Your task to perform on an android device: Open calendar and show me the second week of next month Image 0: 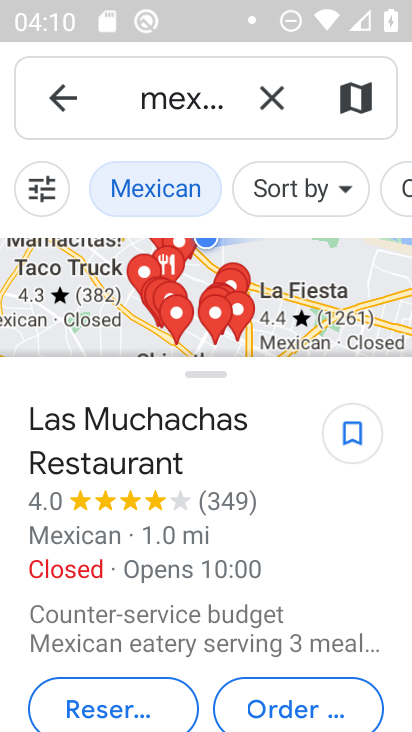
Step 0: press home button
Your task to perform on an android device: Open calendar and show me the second week of next month Image 1: 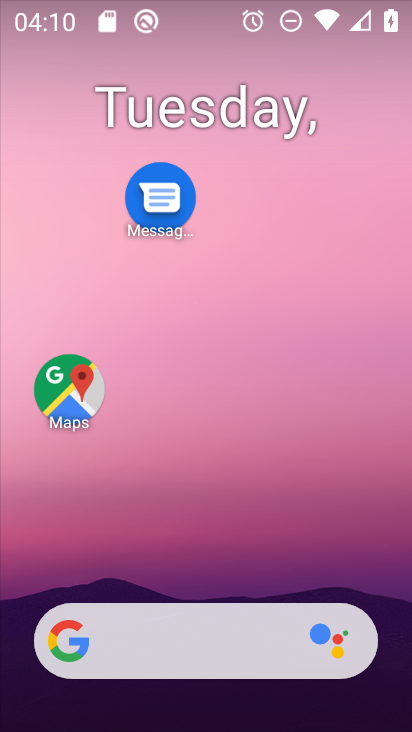
Step 1: drag from (236, 557) to (263, 139)
Your task to perform on an android device: Open calendar and show me the second week of next month Image 2: 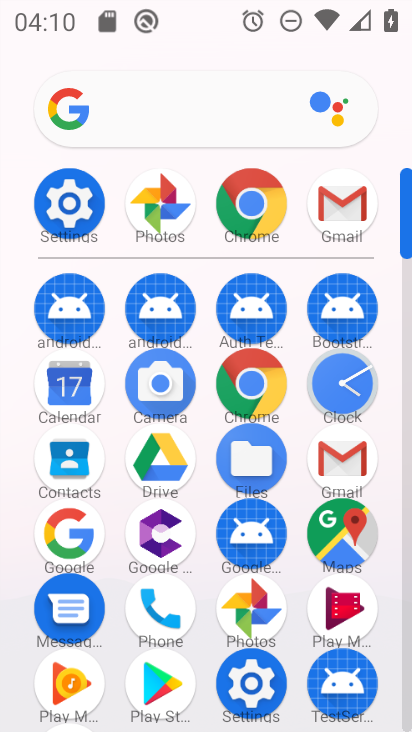
Step 2: click (62, 386)
Your task to perform on an android device: Open calendar and show me the second week of next month Image 3: 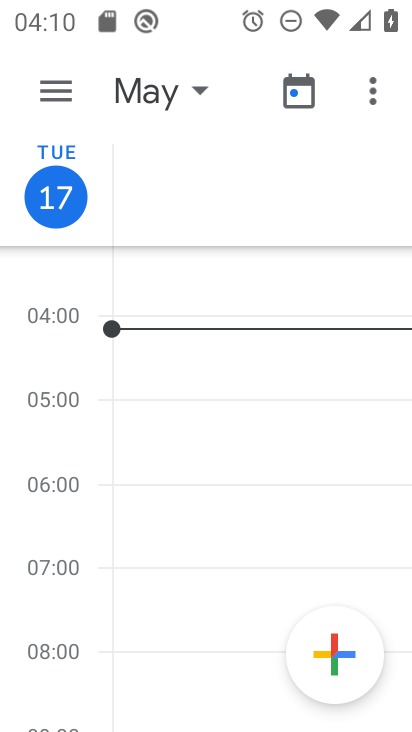
Step 3: click (206, 84)
Your task to perform on an android device: Open calendar and show me the second week of next month Image 4: 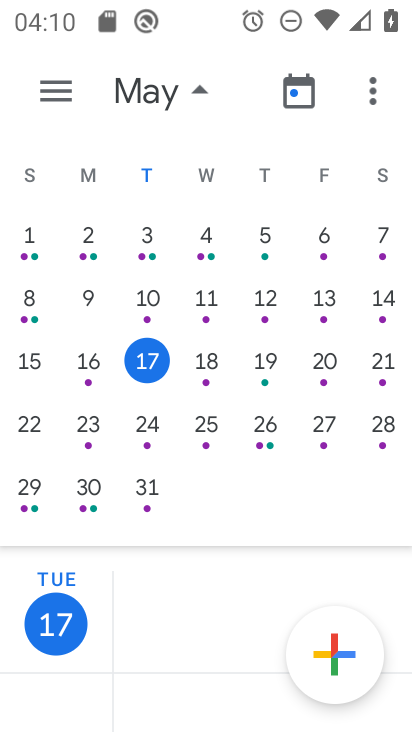
Step 4: drag from (339, 316) to (43, 270)
Your task to perform on an android device: Open calendar and show me the second week of next month Image 5: 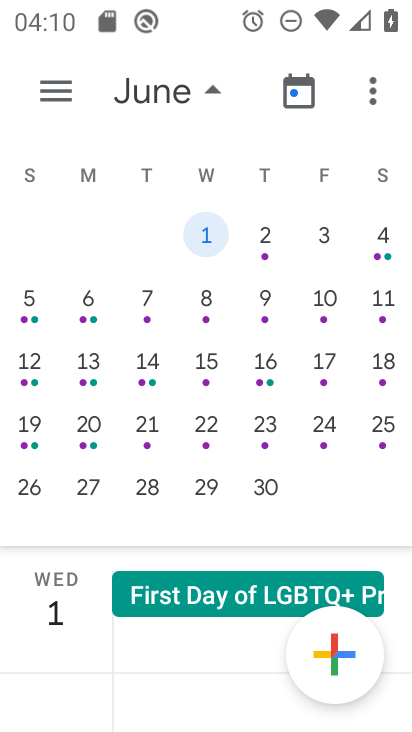
Step 5: click (27, 303)
Your task to perform on an android device: Open calendar and show me the second week of next month Image 6: 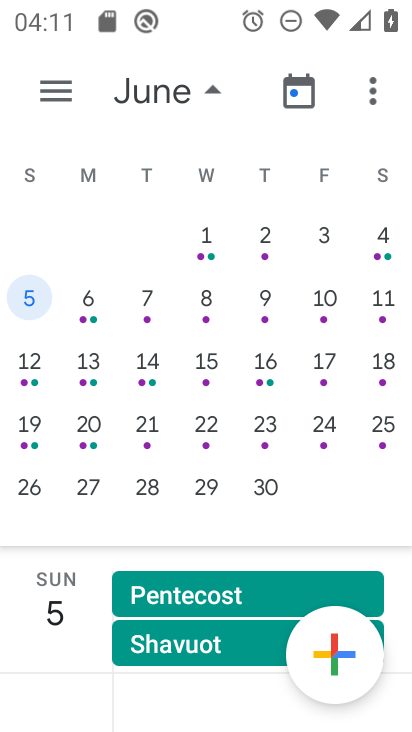
Step 6: task complete